Your task to perform on an android device: Search for Mexican restaurants on Maps Image 0: 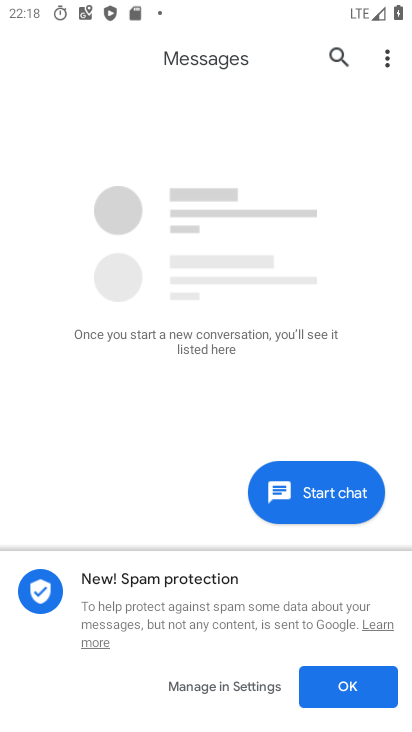
Step 0: press home button
Your task to perform on an android device: Search for Mexican restaurants on Maps Image 1: 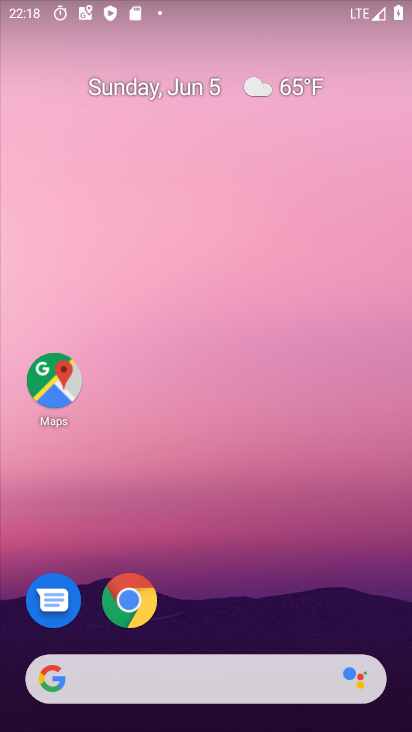
Step 1: click (62, 381)
Your task to perform on an android device: Search for Mexican restaurants on Maps Image 2: 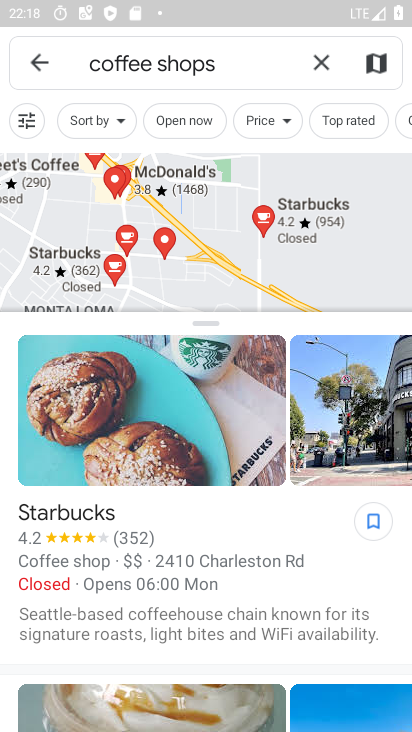
Step 2: click (267, 73)
Your task to perform on an android device: Search for Mexican restaurants on Maps Image 3: 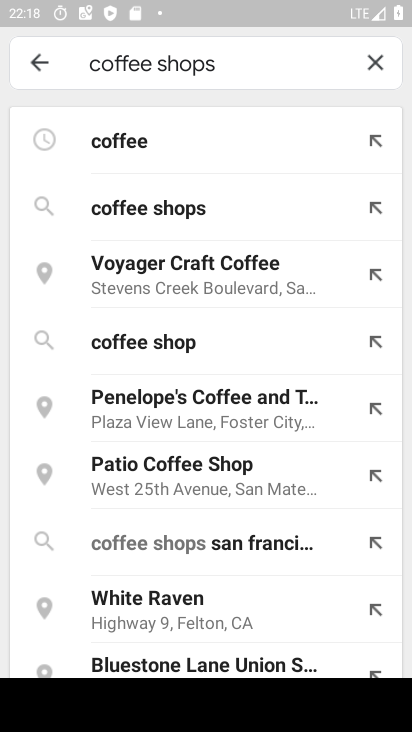
Step 3: click (368, 59)
Your task to perform on an android device: Search for Mexican restaurants on Maps Image 4: 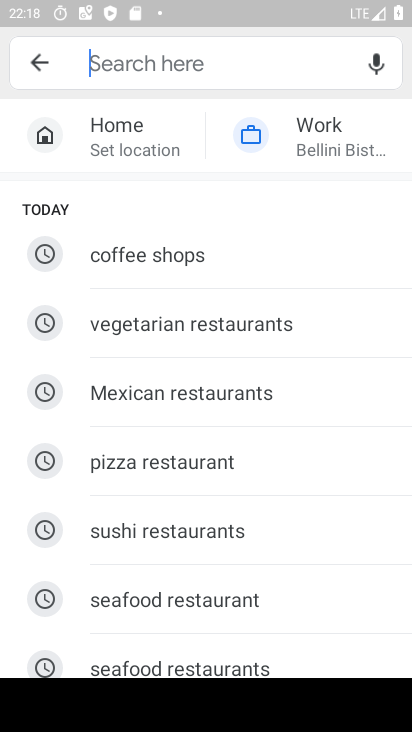
Step 4: click (295, 383)
Your task to perform on an android device: Search for Mexican restaurants on Maps Image 5: 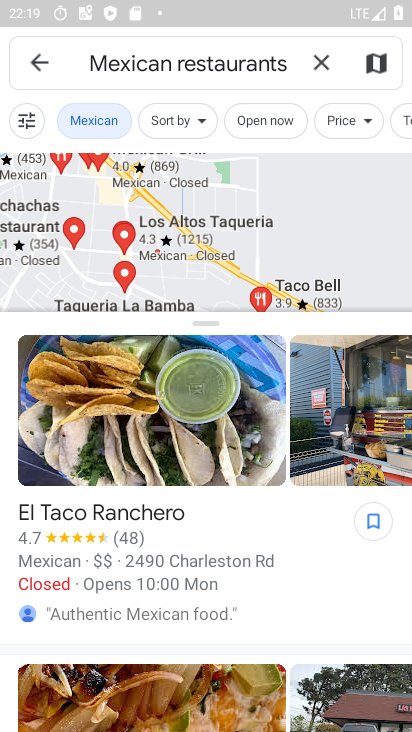
Step 5: task complete